Your task to perform on an android device: Search for "jbl flip 4" on amazon.com, select the first entry, add it to the cart, then select checkout. Image 0: 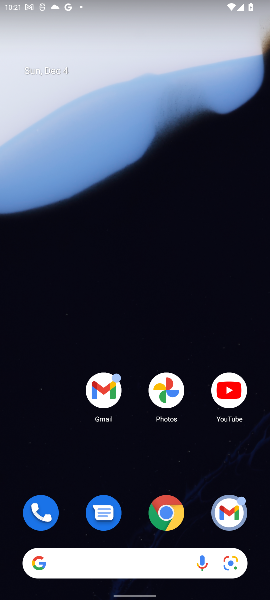
Step 0: click (170, 521)
Your task to perform on an android device: Search for "jbl flip 4" on amazon.com, select the first entry, add it to the cart, then select checkout. Image 1: 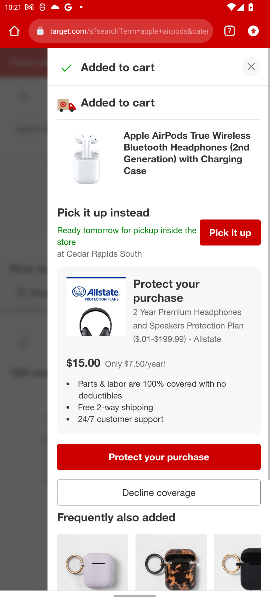
Step 1: click (228, 36)
Your task to perform on an android device: Search for "jbl flip 4" on amazon.com, select the first entry, add it to the cart, then select checkout. Image 2: 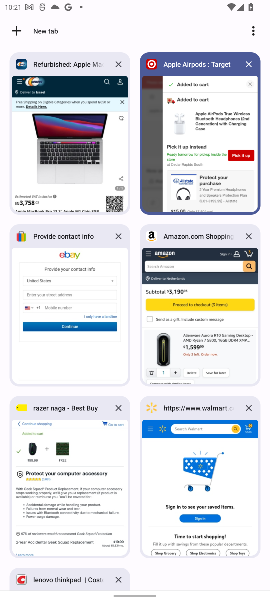
Step 2: click (199, 277)
Your task to perform on an android device: Search for "jbl flip 4" on amazon.com, select the first entry, add it to the cart, then select checkout. Image 3: 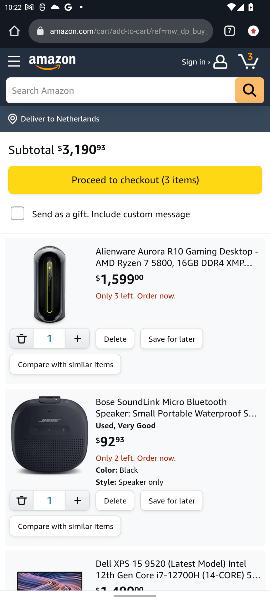
Step 3: click (118, 98)
Your task to perform on an android device: Search for "jbl flip 4" on amazon.com, select the first entry, add it to the cart, then select checkout. Image 4: 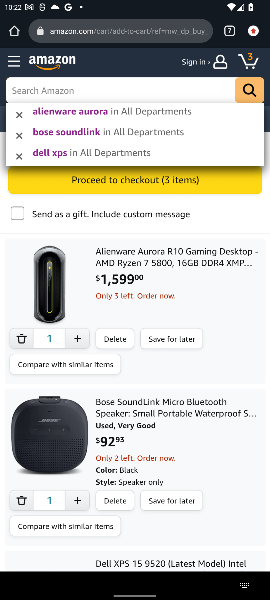
Step 4: type "jbl flip 4"
Your task to perform on an android device: Search for "jbl flip 4" on amazon.com, select the first entry, add it to the cart, then select checkout. Image 5: 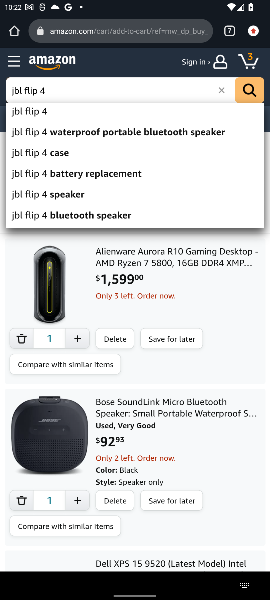
Step 5: click (30, 110)
Your task to perform on an android device: Search for "jbl flip 4" on amazon.com, select the first entry, add it to the cart, then select checkout. Image 6: 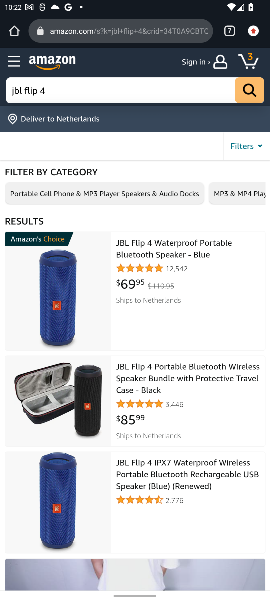
Step 6: click (181, 254)
Your task to perform on an android device: Search for "jbl flip 4" on amazon.com, select the first entry, add it to the cart, then select checkout. Image 7: 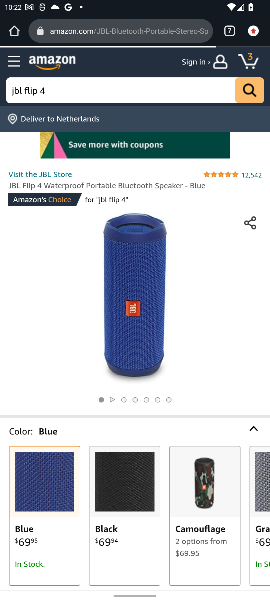
Step 7: drag from (163, 425) to (245, 22)
Your task to perform on an android device: Search for "jbl flip 4" on amazon.com, select the first entry, add it to the cart, then select checkout. Image 8: 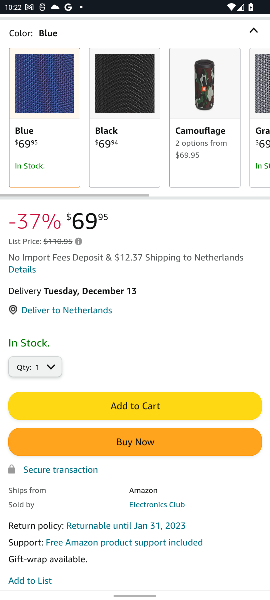
Step 8: click (105, 406)
Your task to perform on an android device: Search for "jbl flip 4" on amazon.com, select the first entry, add it to the cart, then select checkout. Image 9: 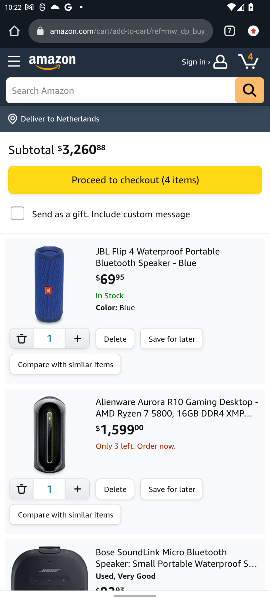
Step 9: click (161, 176)
Your task to perform on an android device: Search for "jbl flip 4" on amazon.com, select the first entry, add it to the cart, then select checkout. Image 10: 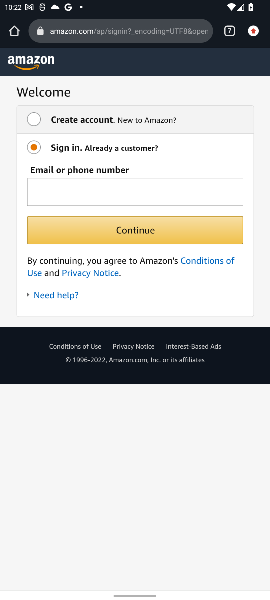
Step 10: task complete